Your task to perform on an android device: all mails in gmail Image 0: 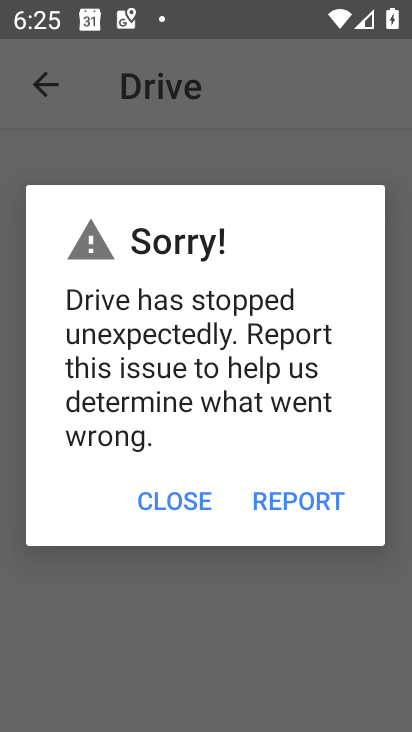
Step 0: press home button
Your task to perform on an android device: all mails in gmail Image 1: 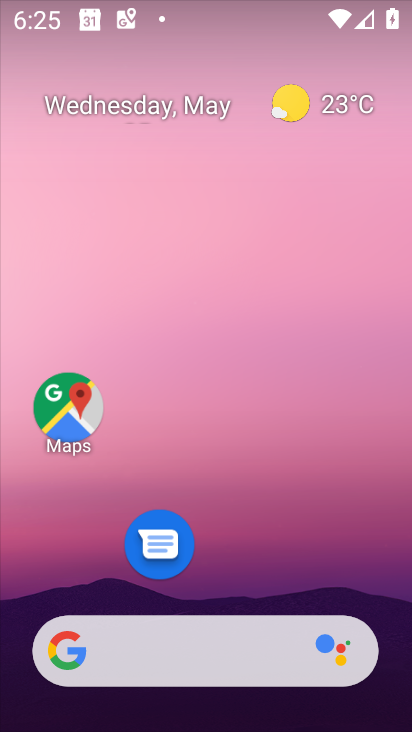
Step 1: drag from (305, 533) to (228, 88)
Your task to perform on an android device: all mails in gmail Image 2: 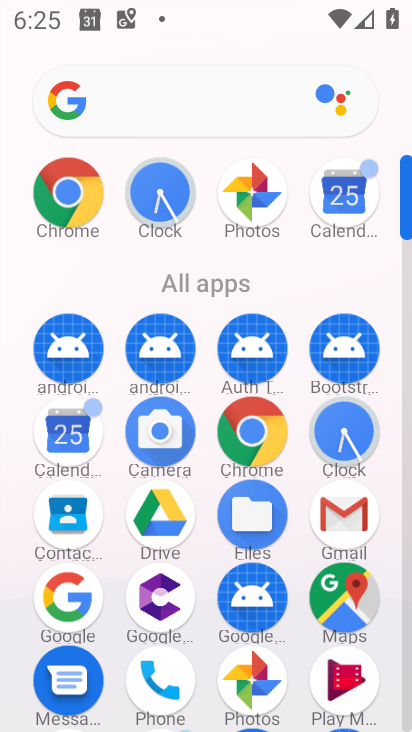
Step 2: click (353, 508)
Your task to perform on an android device: all mails in gmail Image 3: 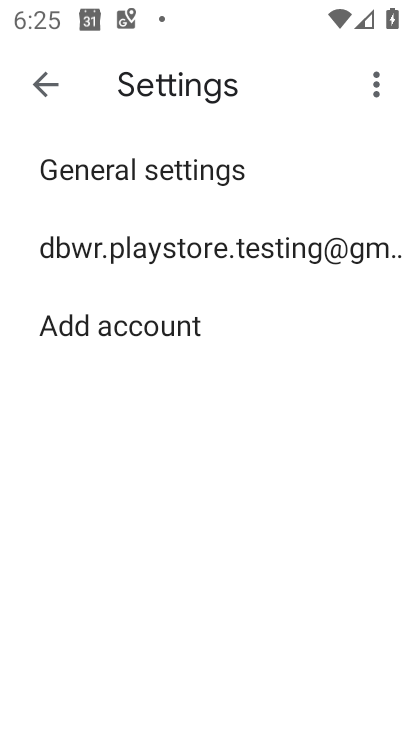
Step 3: click (46, 88)
Your task to perform on an android device: all mails in gmail Image 4: 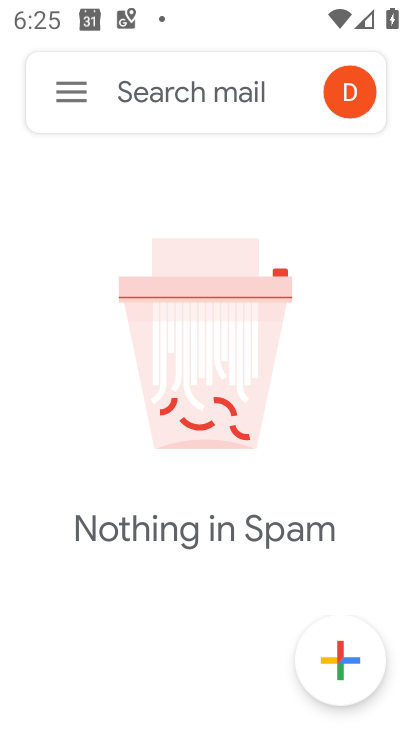
Step 4: click (65, 89)
Your task to perform on an android device: all mails in gmail Image 5: 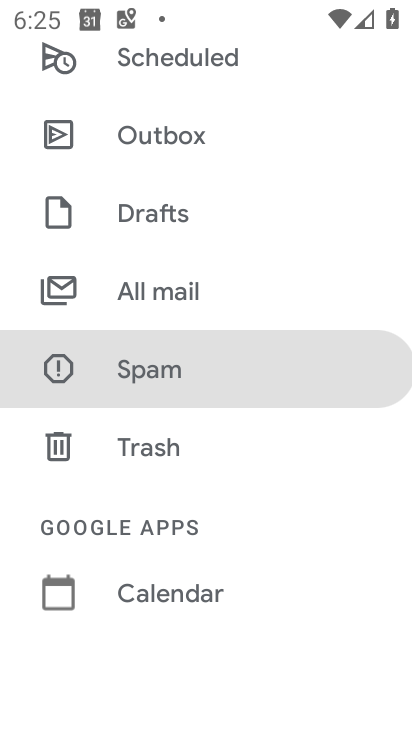
Step 5: click (170, 287)
Your task to perform on an android device: all mails in gmail Image 6: 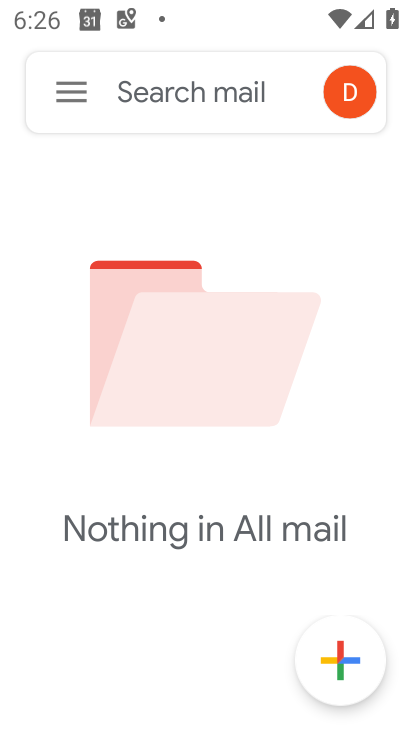
Step 6: task complete